Your task to perform on an android device: Add razer naga to the cart on walmart Image 0: 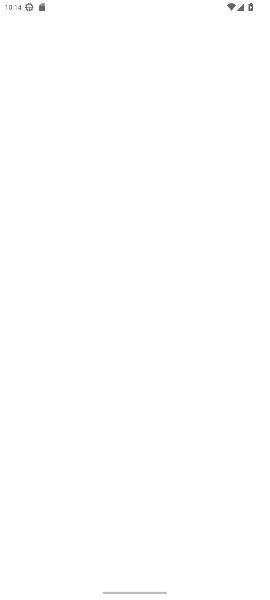
Step 0: press home button
Your task to perform on an android device: Add razer naga to the cart on walmart Image 1: 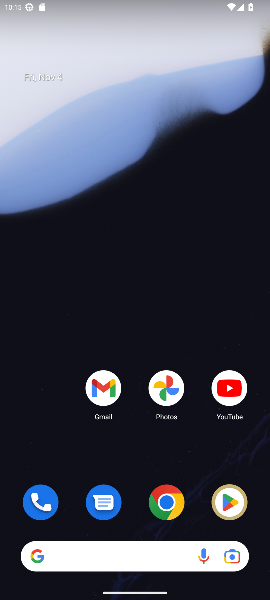
Step 1: click (167, 498)
Your task to perform on an android device: Add razer naga to the cart on walmart Image 2: 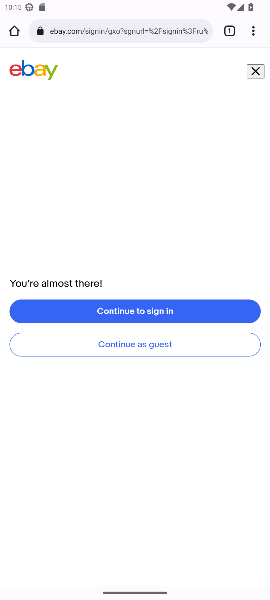
Step 2: click (159, 32)
Your task to perform on an android device: Add razer naga to the cart on walmart Image 3: 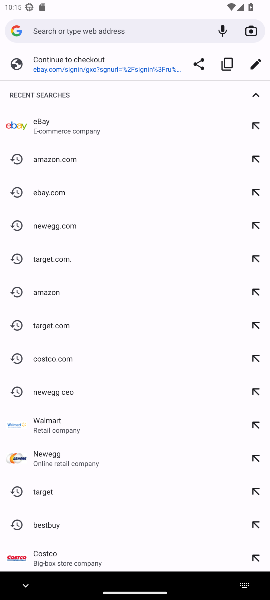
Step 3: type "walmart"
Your task to perform on an android device: Add razer naga to the cart on walmart Image 4: 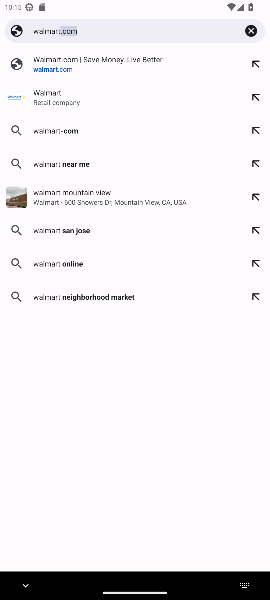
Step 4: click (169, 30)
Your task to perform on an android device: Add razer naga to the cart on walmart Image 5: 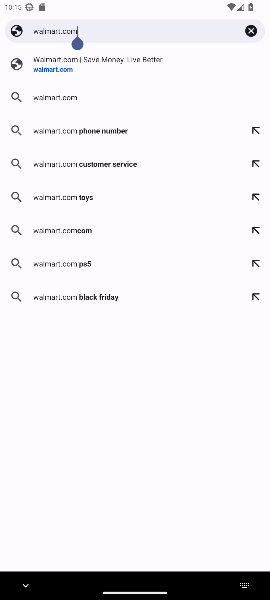
Step 5: click (59, 97)
Your task to perform on an android device: Add razer naga to the cart on walmart Image 6: 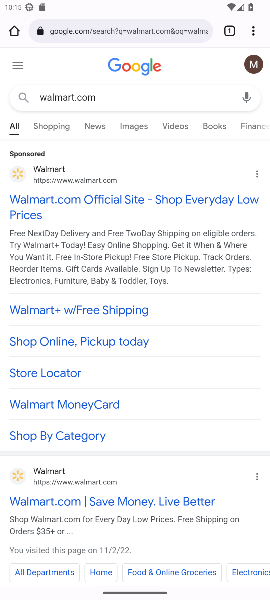
Step 6: click (83, 178)
Your task to perform on an android device: Add razer naga to the cart on walmart Image 7: 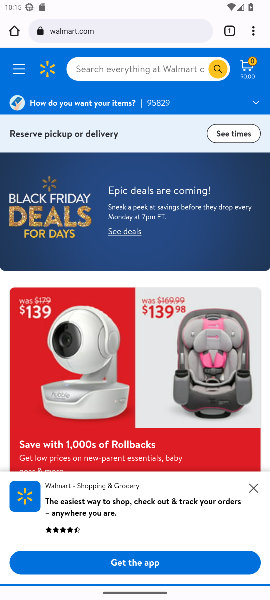
Step 7: click (130, 64)
Your task to perform on an android device: Add razer naga to the cart on walmart Image 8: 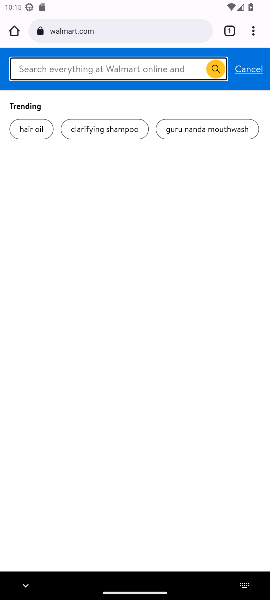
Step 8: type "razer naga"
Your task to perform on an android device: Add razer naga to the cart on walmart Image 9: 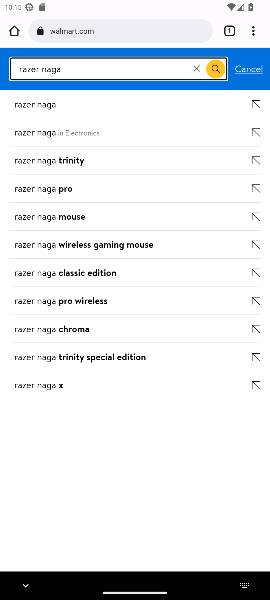
Step 9: click (26, 105)
Your task to perform on an android device: Add razer naga to the cart on walmart Image 10: 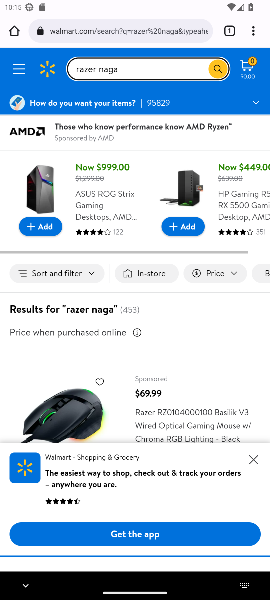
Step 10: click (256, 459)
Your task to perform on an android device: Add razer naga to the cart on walmart Image 11: 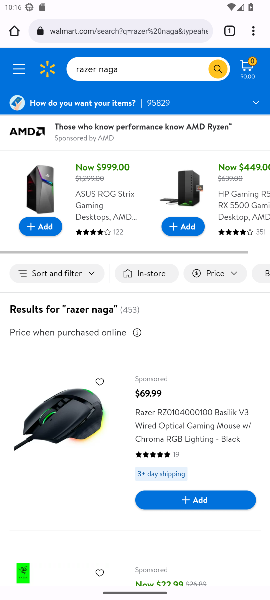
Step 11: drag from (227, 444) to (227, 301)
Your task to perform on an android device: Add razer naga to the cart on walmart Image 12: 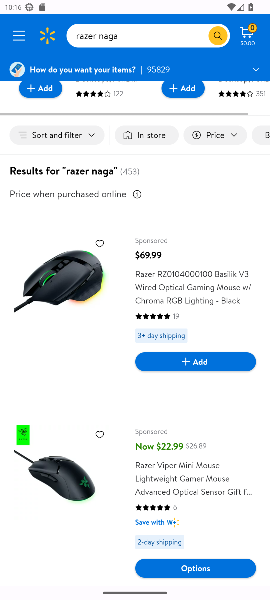
Step 12: drag from (209, 457) to (215, 223)
Your task to perform on an android device: Add razer naga to the cart on walmart Image 13: 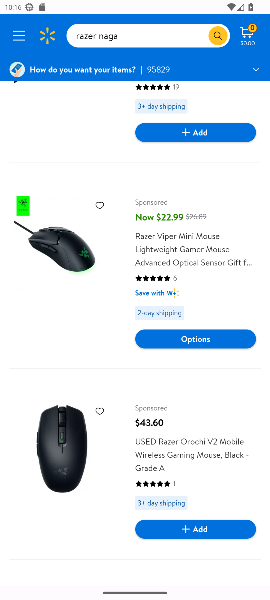
Step 13: drag from (224, 469) to (219, 262)
Your task to perform on an android device: Add razer naga to the cart on walmart Image 14: 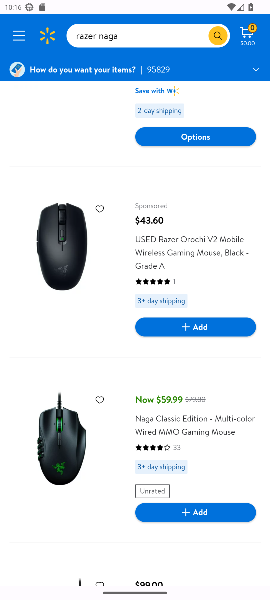
Step 14: drag from (224, 438) to (229, 238)
Your task to perform on an android device: Add razer naga to the cart on walmart Image 15: 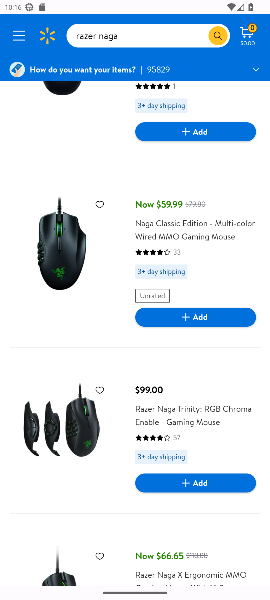
Step 15: click (62, 413)
Your task to perform on an android device: Add razer naga to the cart on walmart Image 16: 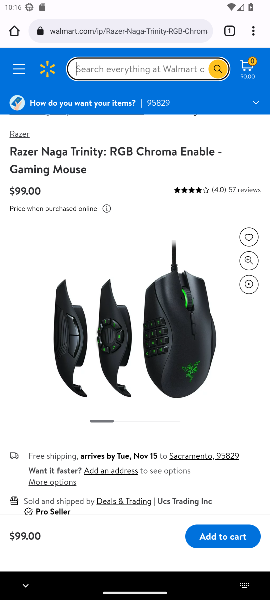
Step 16: click (225, 540)
Your task to perform on an android device: Add razer naga to the cart on walmart Image 17: 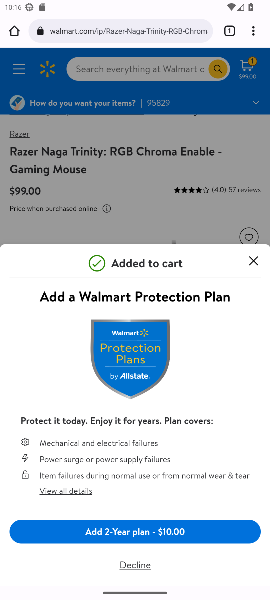
Step 17: task complete